Your task to perform on an android device: choose inbox layout in the gmail app Image 0: 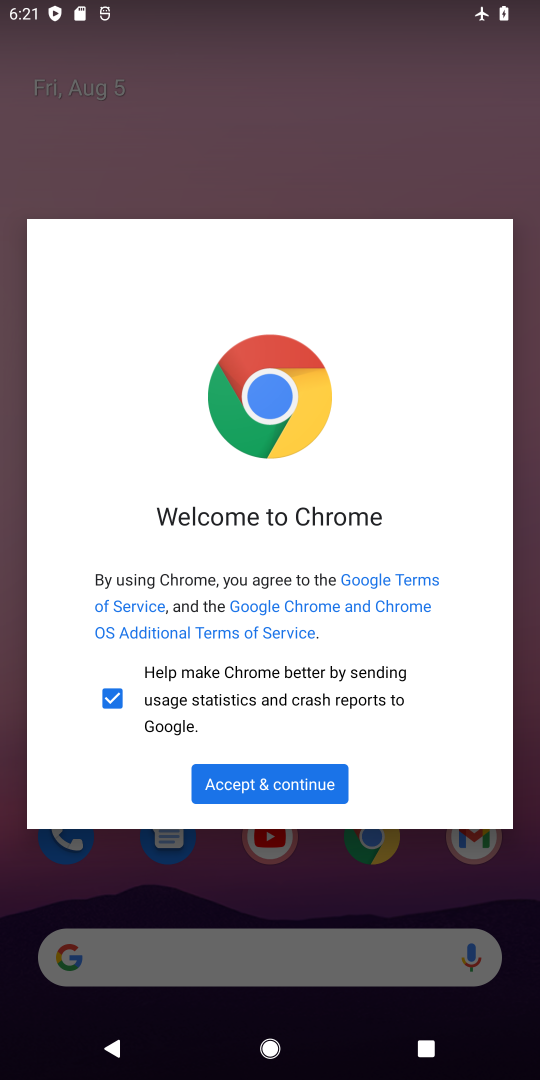
Step 0: press back button
Your task to perform on an android device: choose inbox layout in the gmail app Image 1: 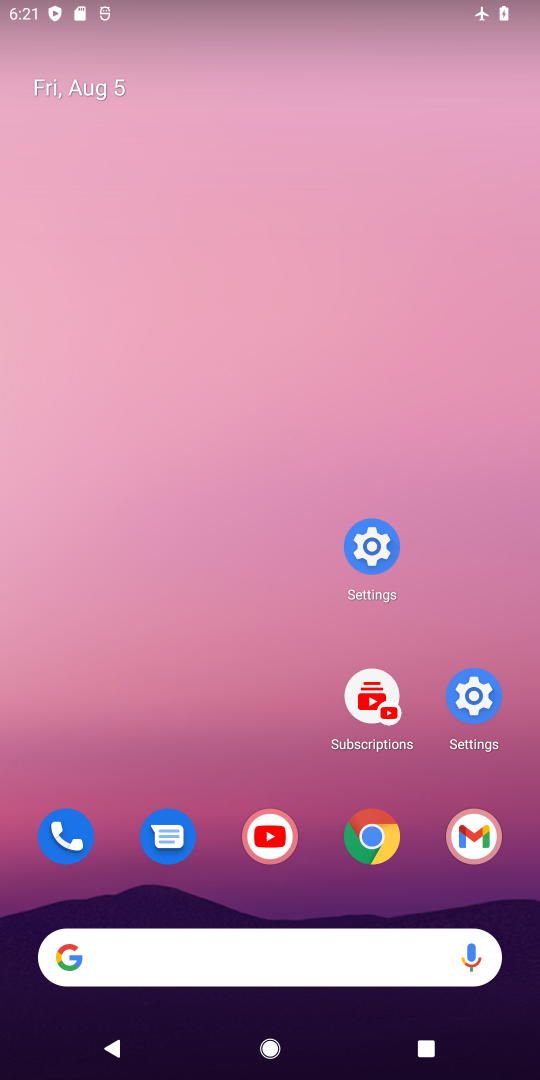
Step 1: click (96, 328)
Your task to perform on an android device: choose inbox layout in the gmail app Image 2: 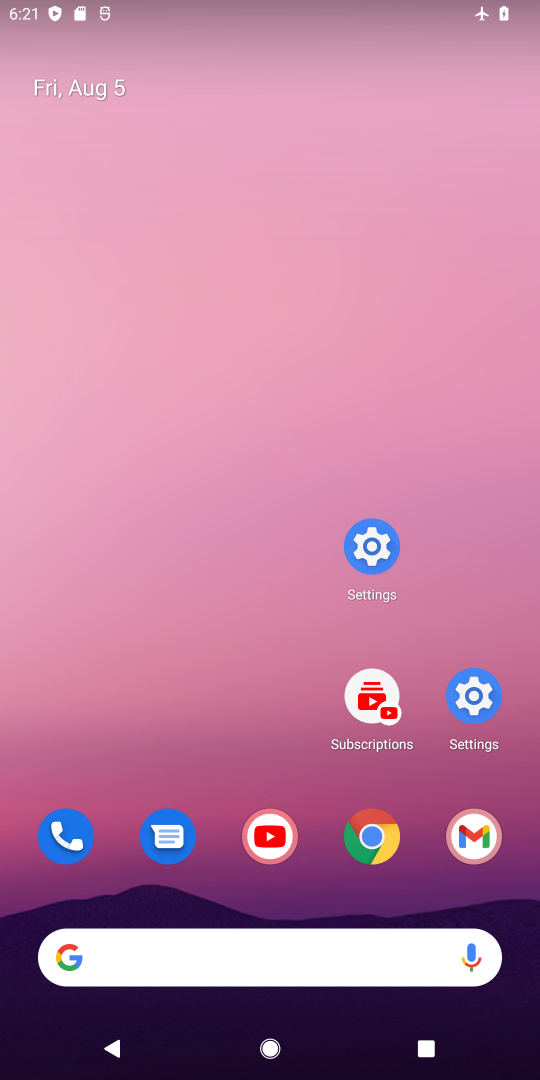
Step 2: drag from (243, 492) to (208, 234)
Your task to perform on an android device: choose inbox layout in the gmail app Image 3: 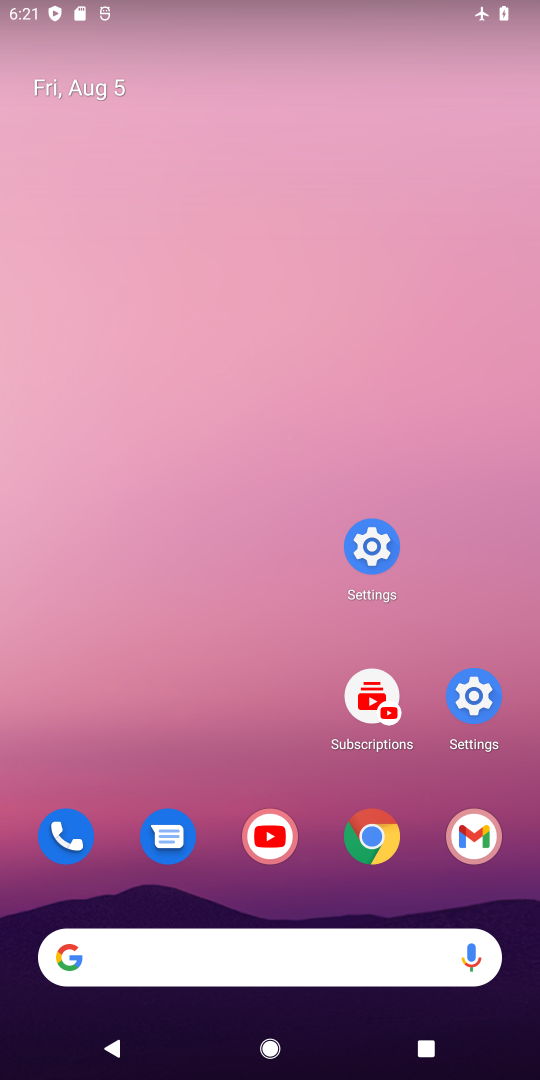
Step 3: drag from (247, 731) to (325, 249)
Your task to perform on an android device: choose inbox layout in the gmail app Image 4: 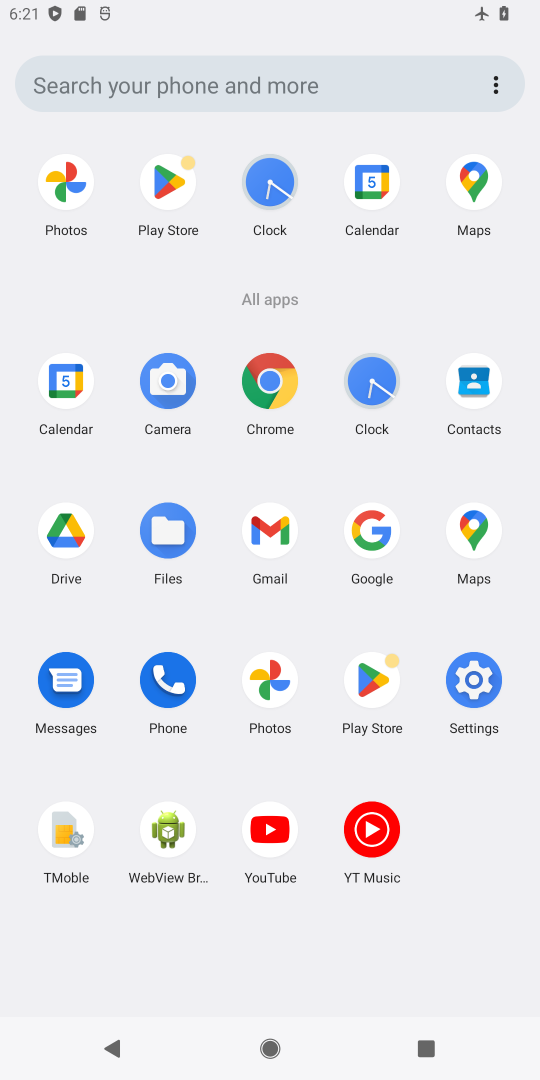
Step 4: click (263, 521)
Your task to perform on an android device: choose inbox layout in the gmail app Image 5: 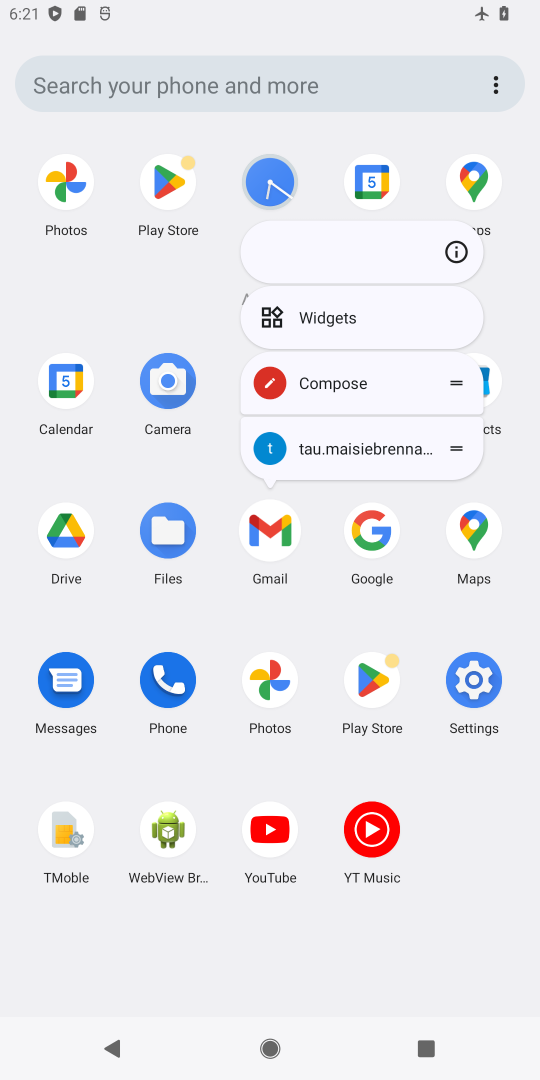
Step 5: click (263, 521)
Your task to perform on an android device: choose inbox layout in the gmail app Image 6: 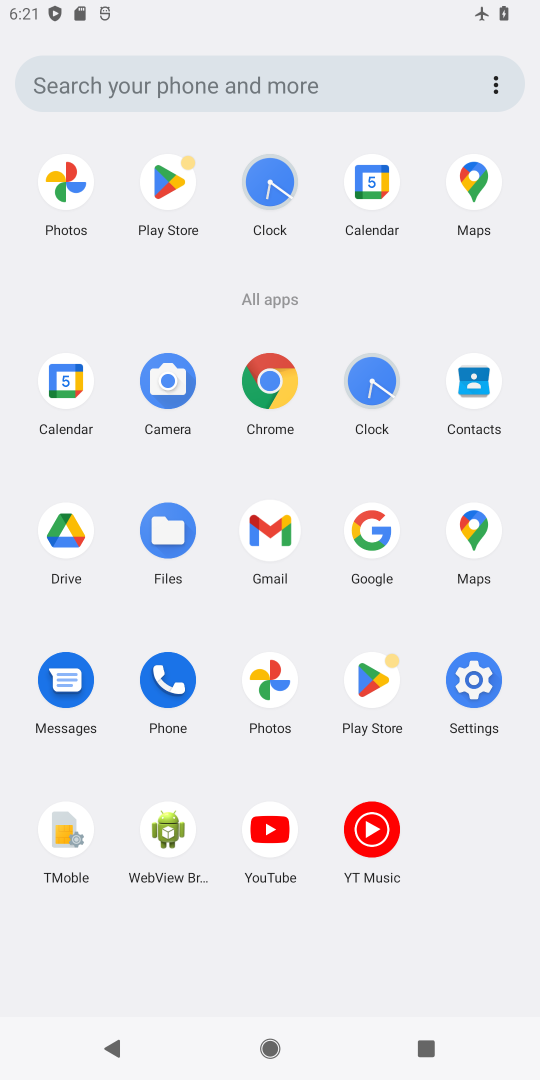
Step 6: click (263, 524)
Your task to perform on an android device: choose inbox layout in the gmail app Image 7: 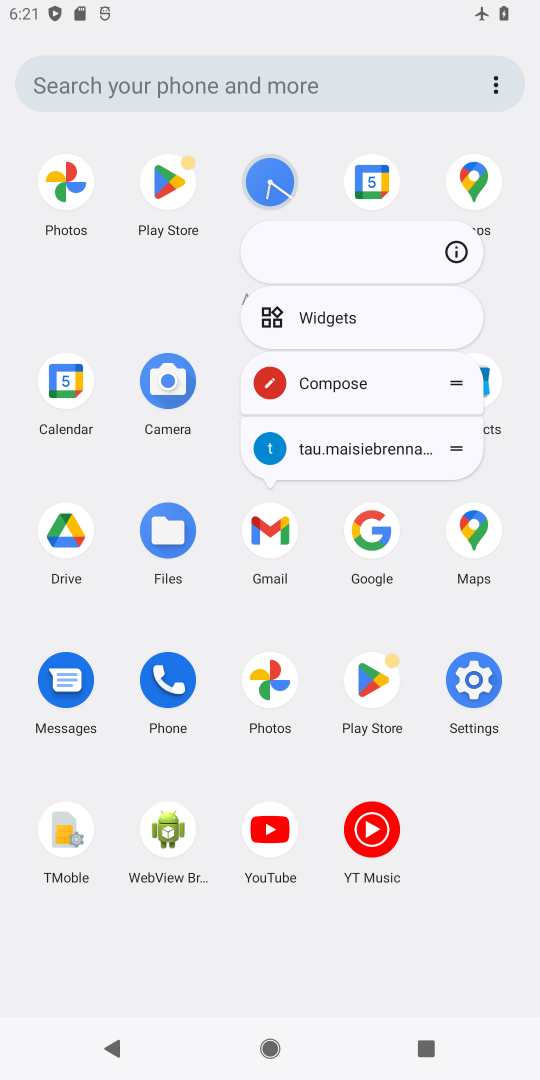
Step 7: click (262, 525)
Your task to perform on an android device: choose inbox layout in the gmail app Image 8: 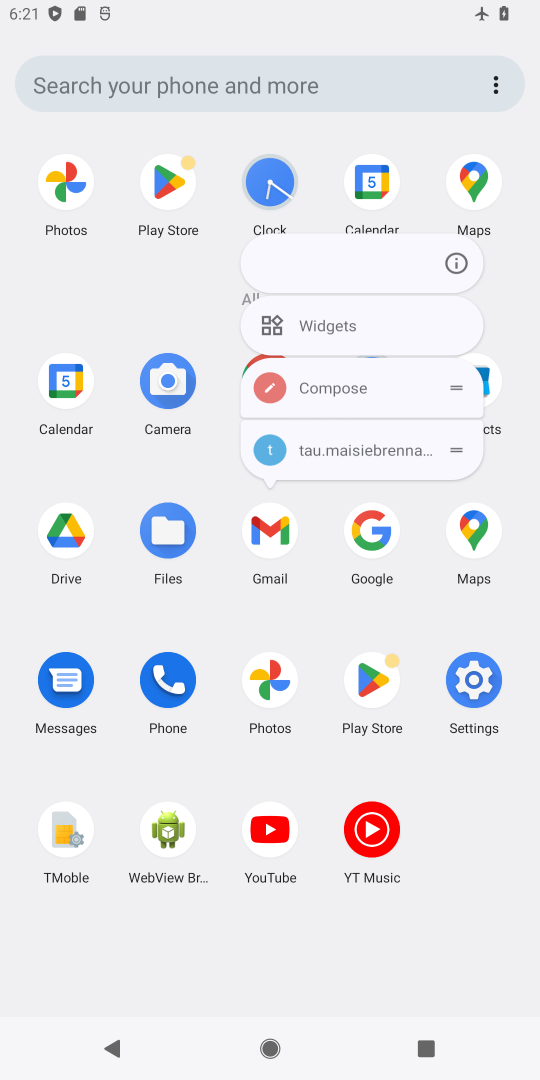
Step 8: click (262, 525)
Your task to perform on an android device: choose inbox layout in the gmail app Image 9: 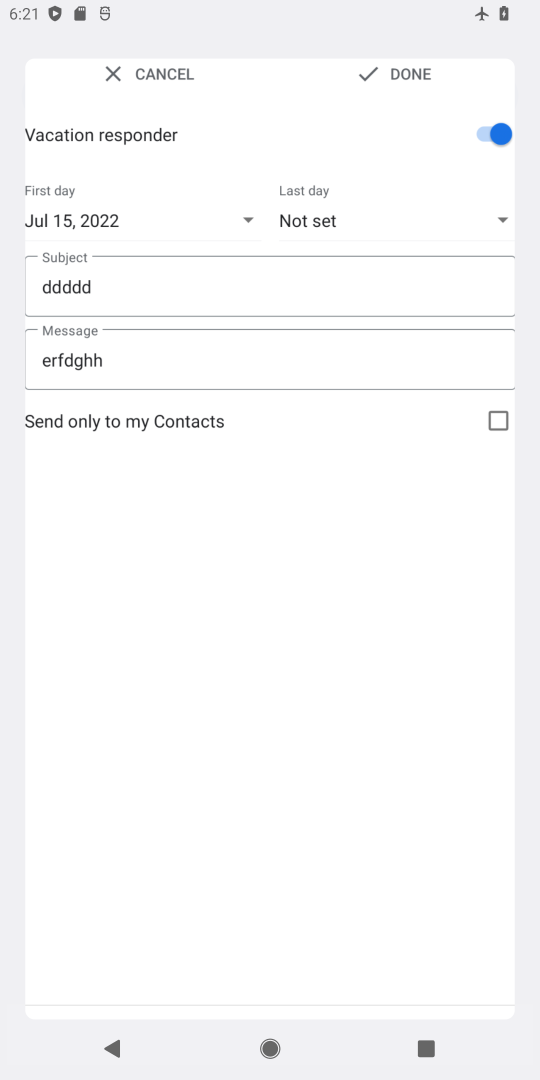
Step 9: click (262, 525)
Your task to perform on an android device: choose inbox layout in the gmail app Image 10: 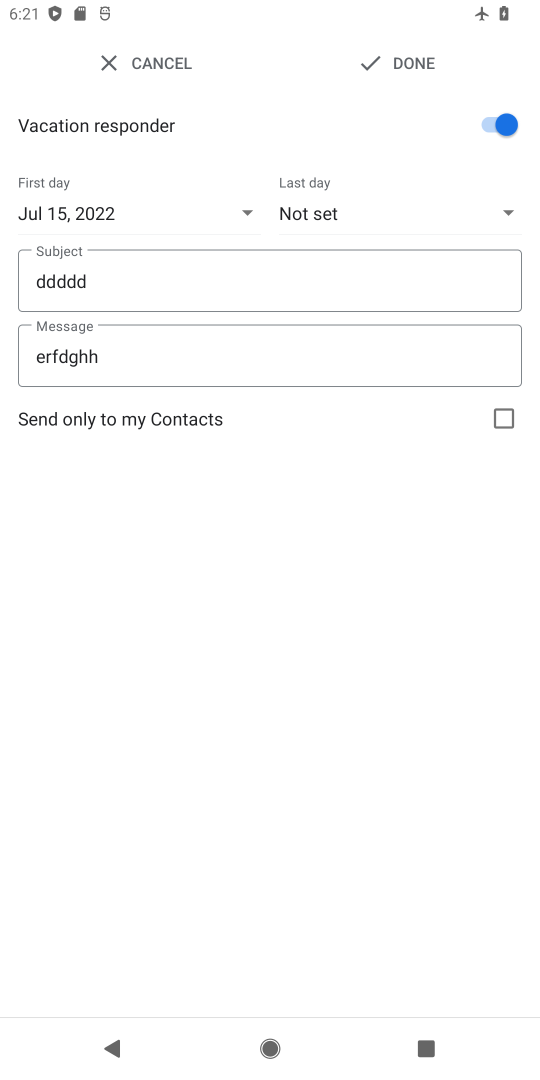
Step 10: click (262, 525)
Your task to perform on an android device: choose inbox layout in the gmail app Image 11: 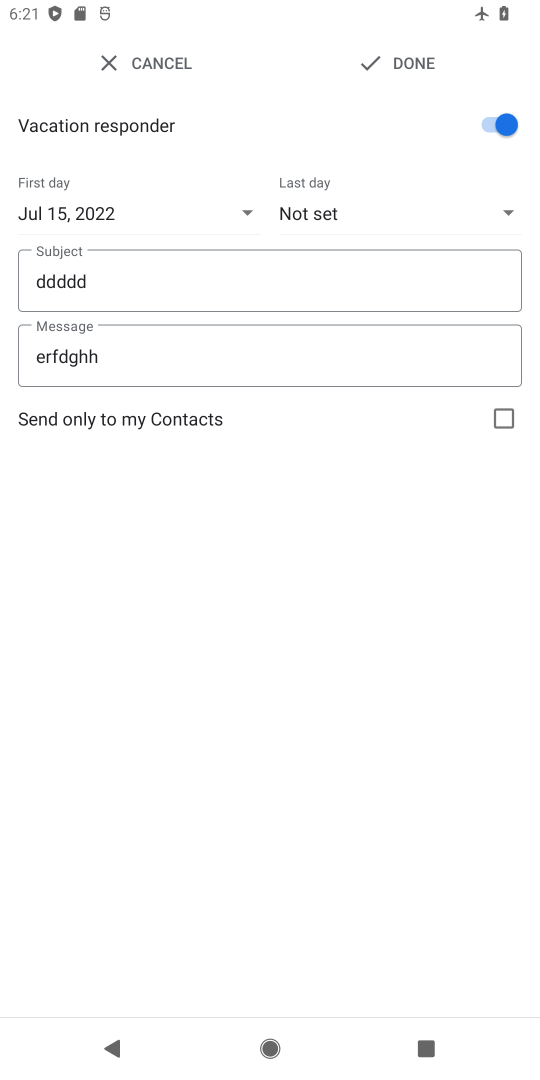
Step 11: click (264, 532)
Your task to perform on an android device: choose inbox layout in the gmail app Image 12: 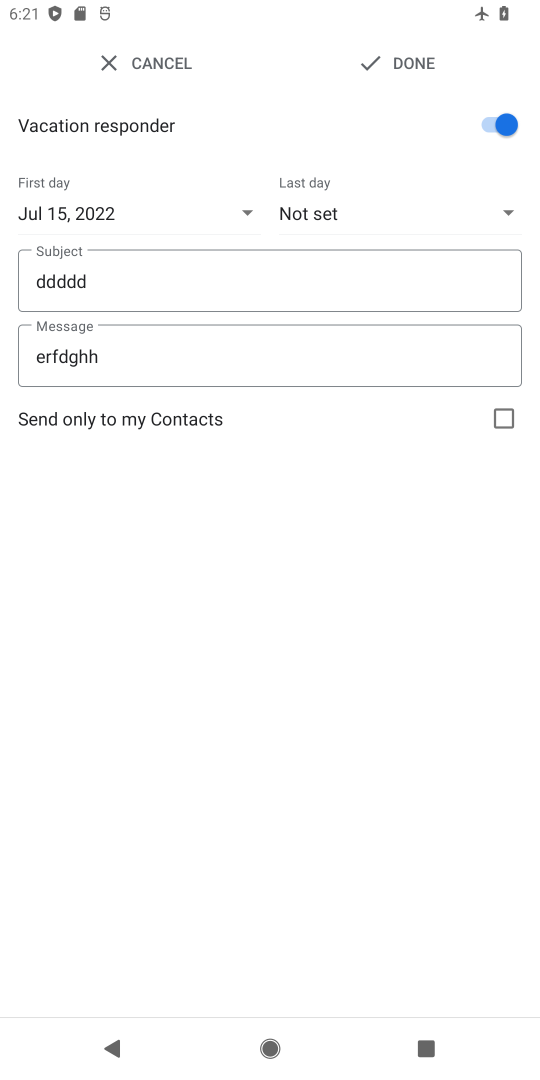
Step 12: press back button
Your task to perform on an android device: choose inbox layout in the gmail app Image 13: 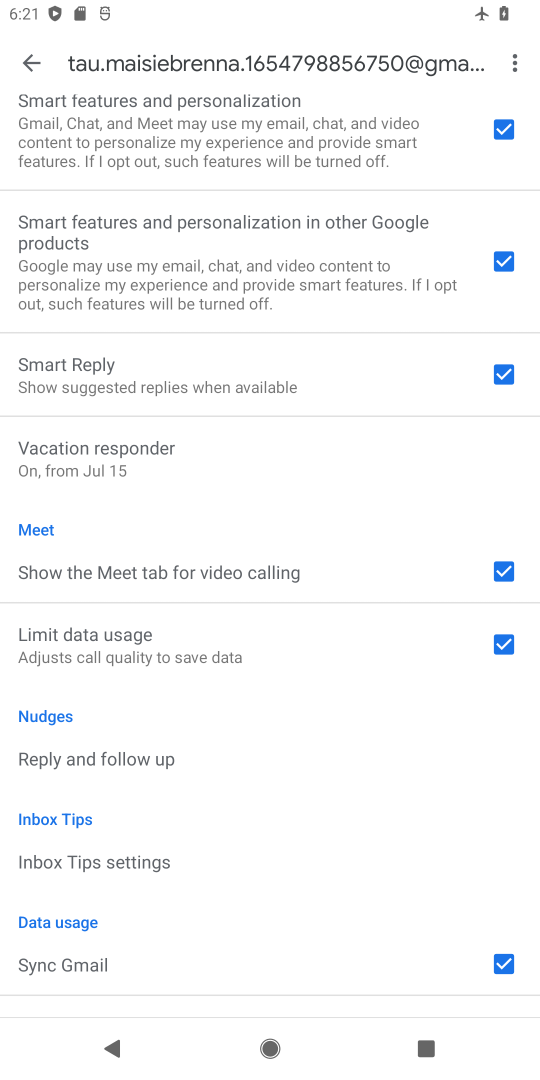
Step 13: click (28, 61)
Your task to perform on an android device: choose inbox layout in the gmail app Image 14: 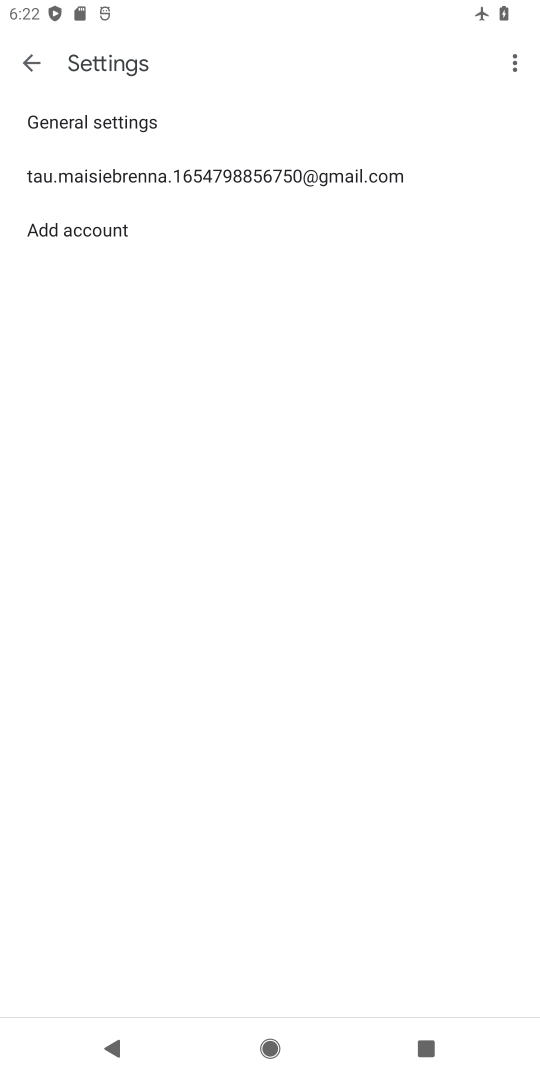
Step 14: click (26, 71)
Your task to perform on an android device: choose inbox layout in the gmail app Image 15: 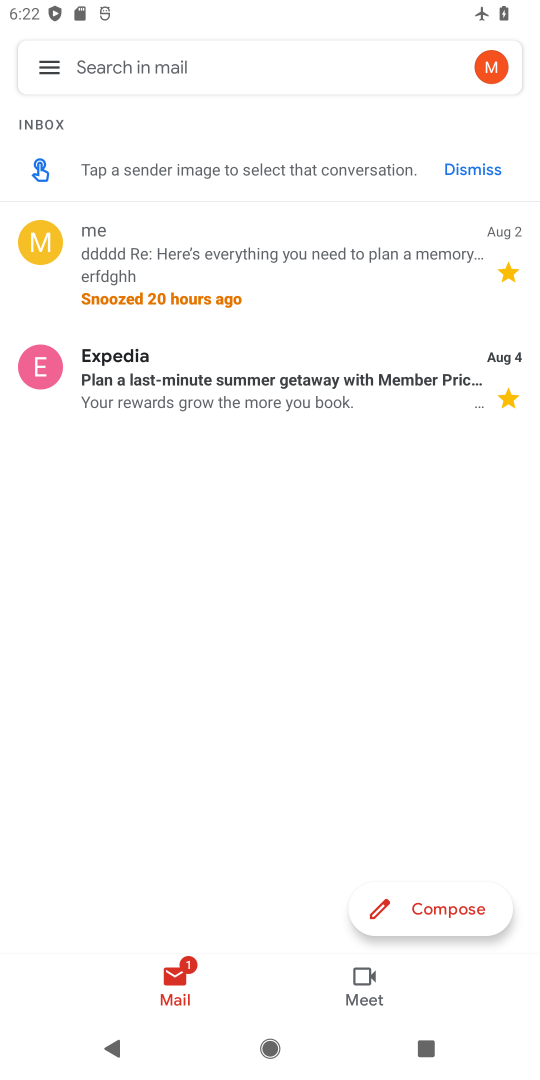
Step 15: click (34, 53)
Your task to perform on an android device: choose inbox layout in the gmail app Image 16: 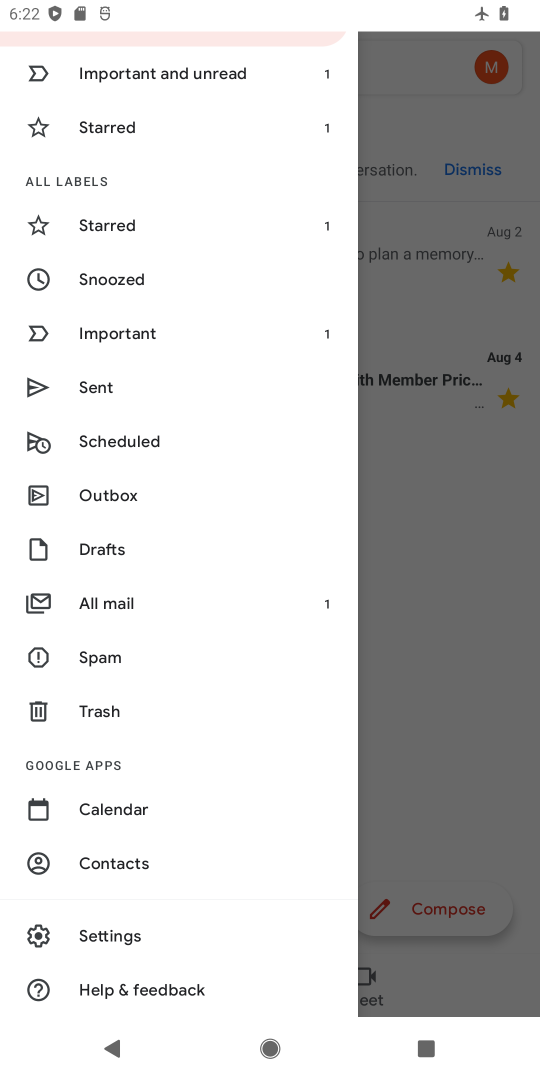
Step 16: click (34, 58)
Your task to perform on an android device: choose inbox layout in the gmail app Image 17: 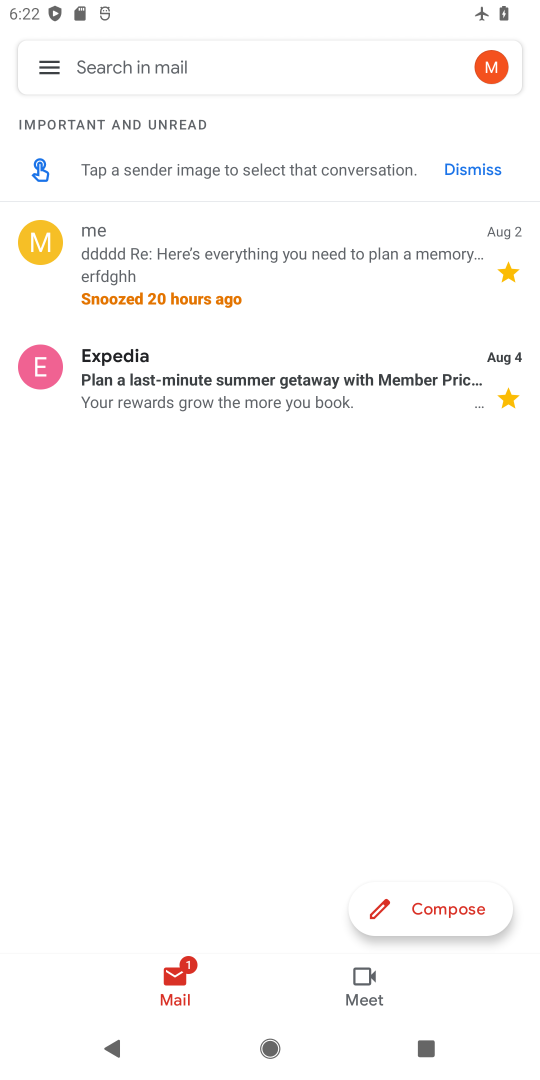
Step 17: press back button
Your task to perform on an android device: choose inbox layout in the gmail app Image 18: 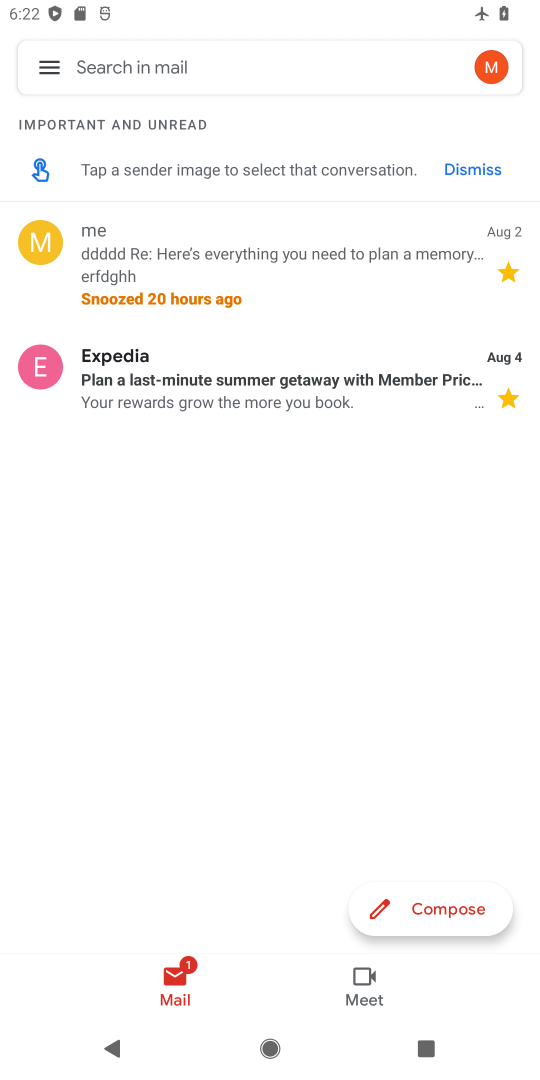
Step 18: press back button
Your task to perform on an android device: choose inbox layout in the gmail app Image 19: 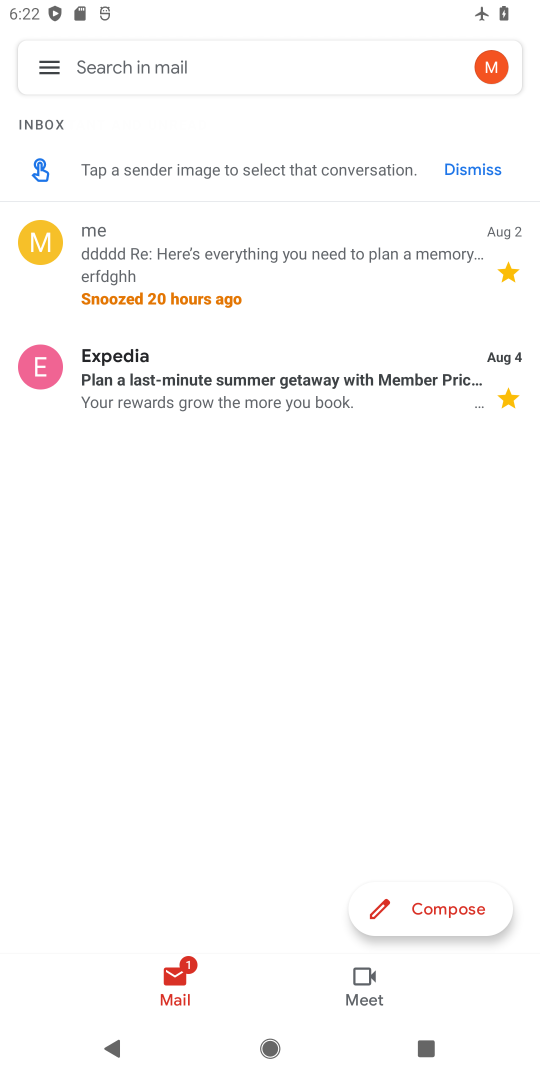
Step 19: press back button
Your task to perform on an android device: choose inbox layout in the gmail app Image 20: 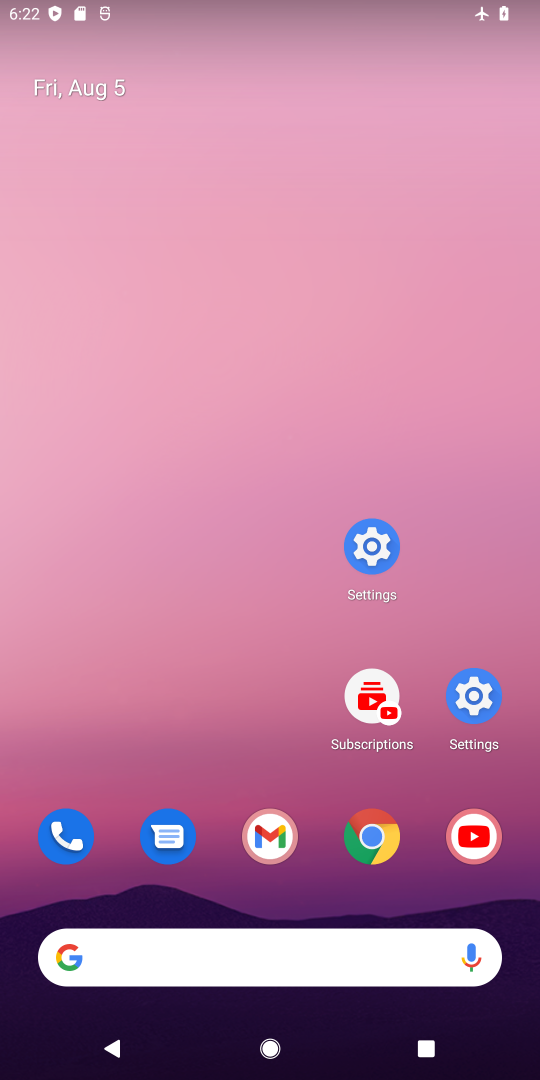
Step 20: drag from (289, 771) to (211, 245)
Your task to perform on an android device: choose inbox layout in the gmail app Image 21: 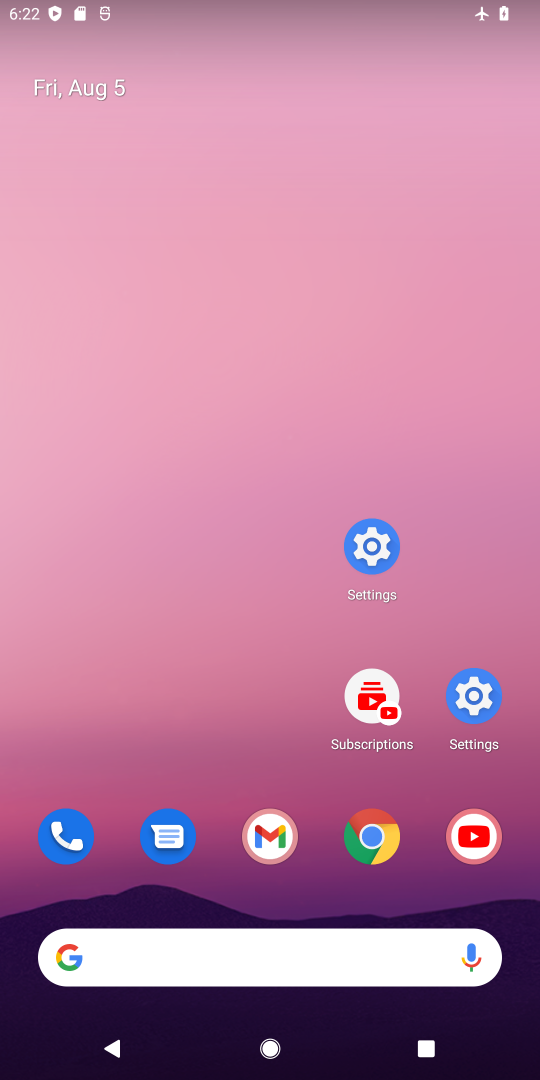
Step 21: drag from (294, 838) to (206, 231)
Your task to perform on an android device: choose inbox layout in the gmail app Image 22: 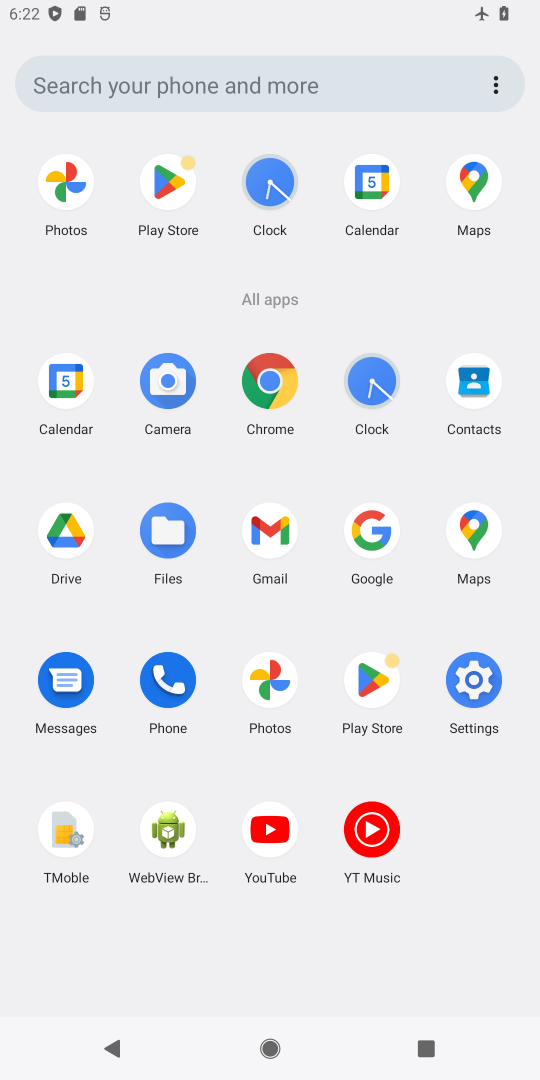
Step 22: drag from (284, 734) to (284, 107)
Your task to perform on an android device: choose inbox layout in the gmail app Image 23: 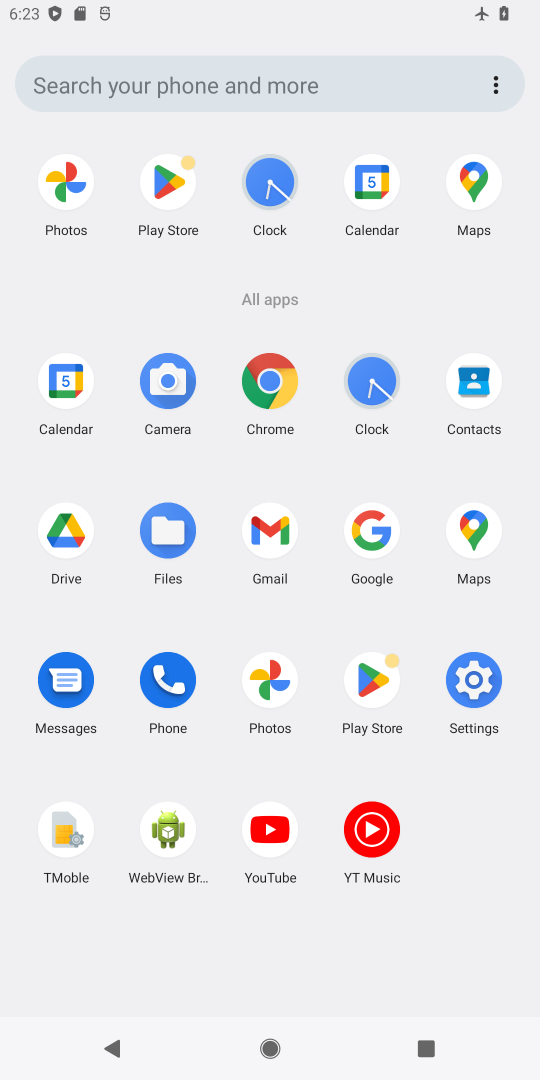
Step 23: click (259, 529)
Your task to perform on an android device: choose inbox layout in the gmail app Image 24: 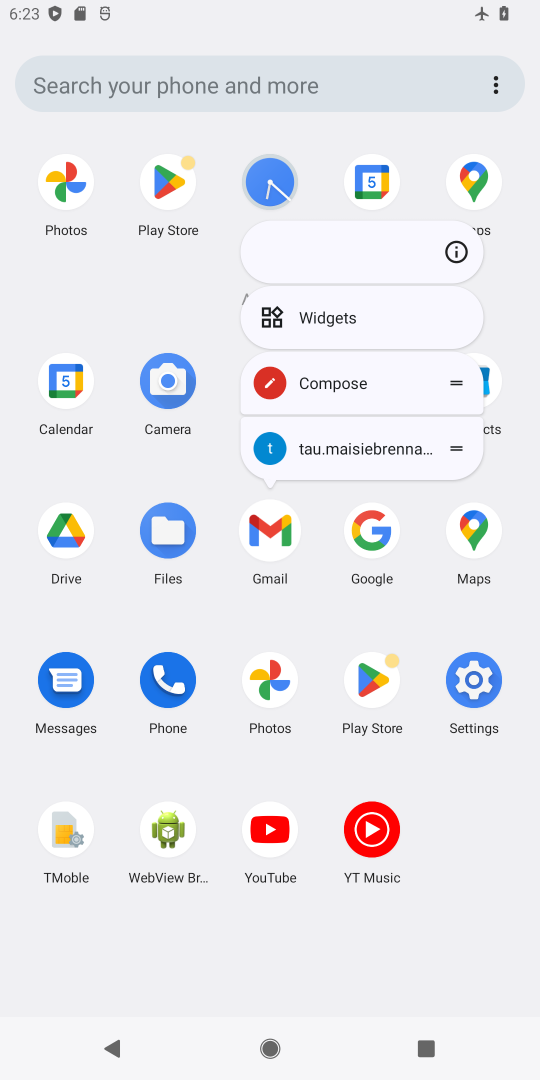
Step 24: click (259, 529)
Your task to perform on an android device: choose inbox layout in the gmail app Image 25: 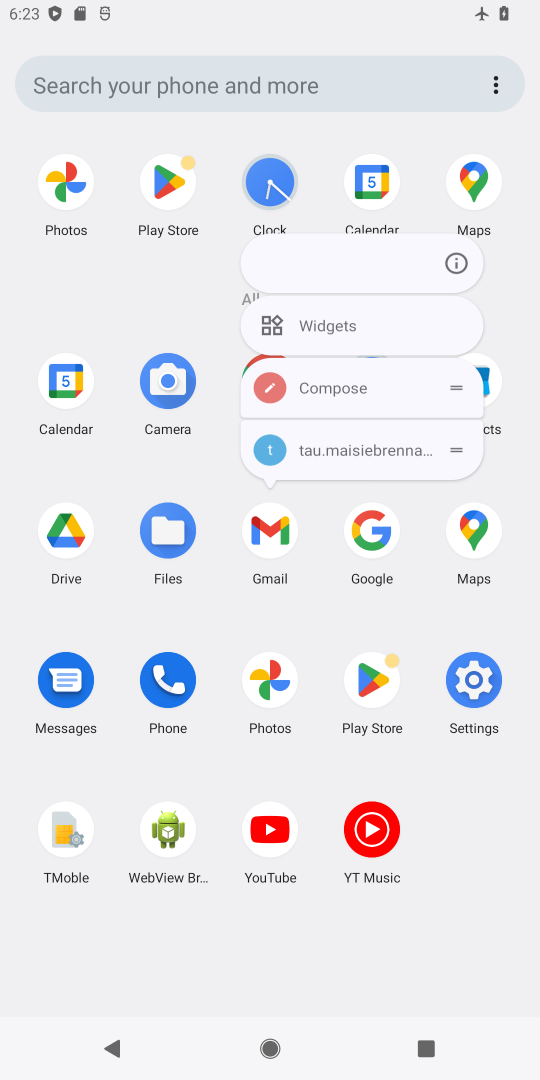
Step 25: click (259, 529)
Your task to perform on an android device: choose inbox layout in the gmail app Image 26: 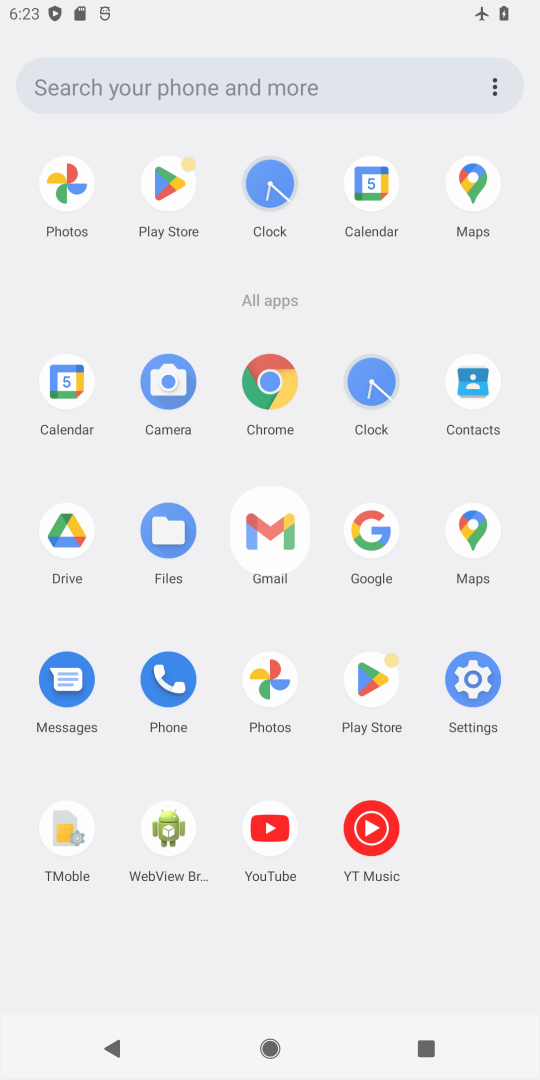
Step 26: click (259, 529)
Your task to perform on an android device: choose inbox layout in the gmail app Image 27: 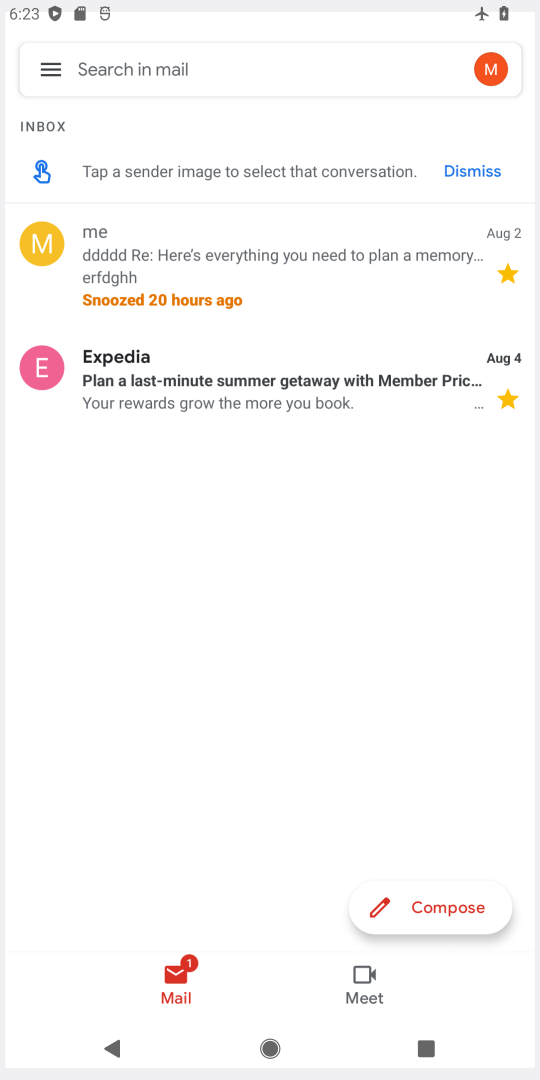
Step 27: click (266, 532)
Your task to perform on an android device: choose inbox layout in the gmail app Image 28: 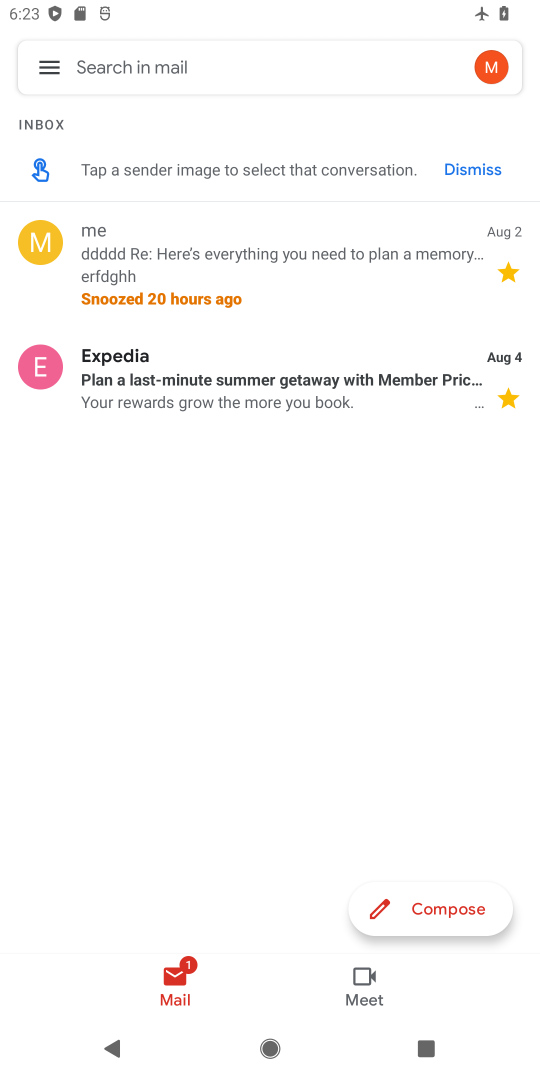
Step 28: click (41, 59)
Your task to perform on an android device: choose inbox layout in the gmail app Image 29: 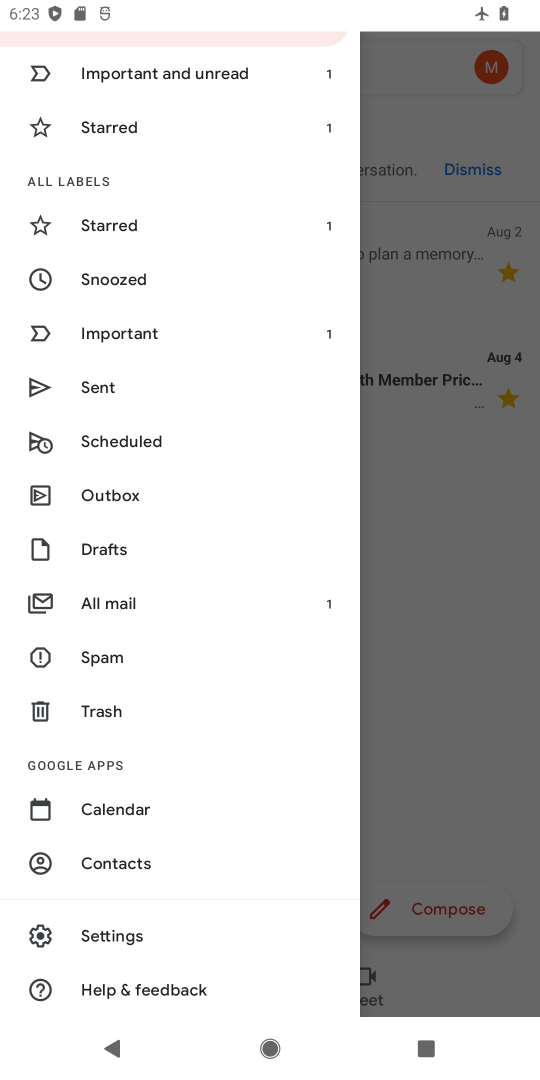
Step 29: click (41, 60)
Your task to perform on an android device: choose inbox layout in the gmail app Image 30: 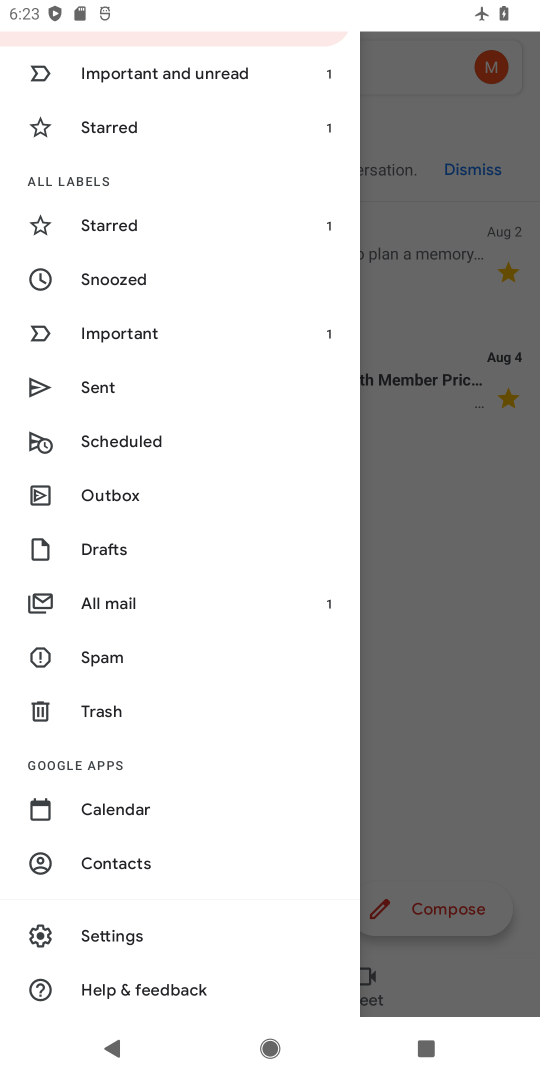
Step 30: drag from (132, 393) to (211, 759)
Your task to perform on an android device: choose inbox layout in the gmail app Image 31: 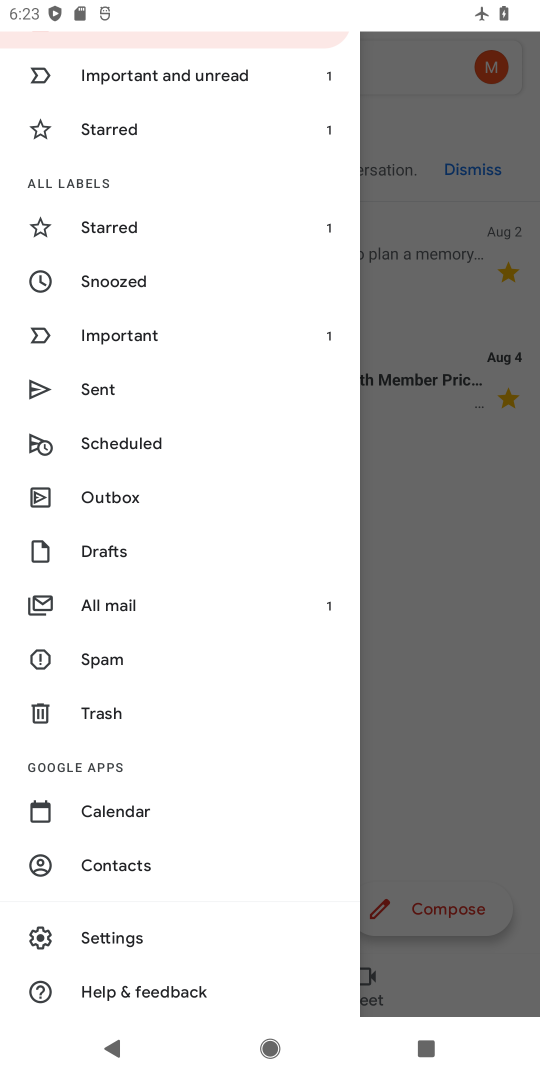
Step 31: click (173, 293)
Your task to perform on an android device: choose inbox layout in the gmail app Image 32: 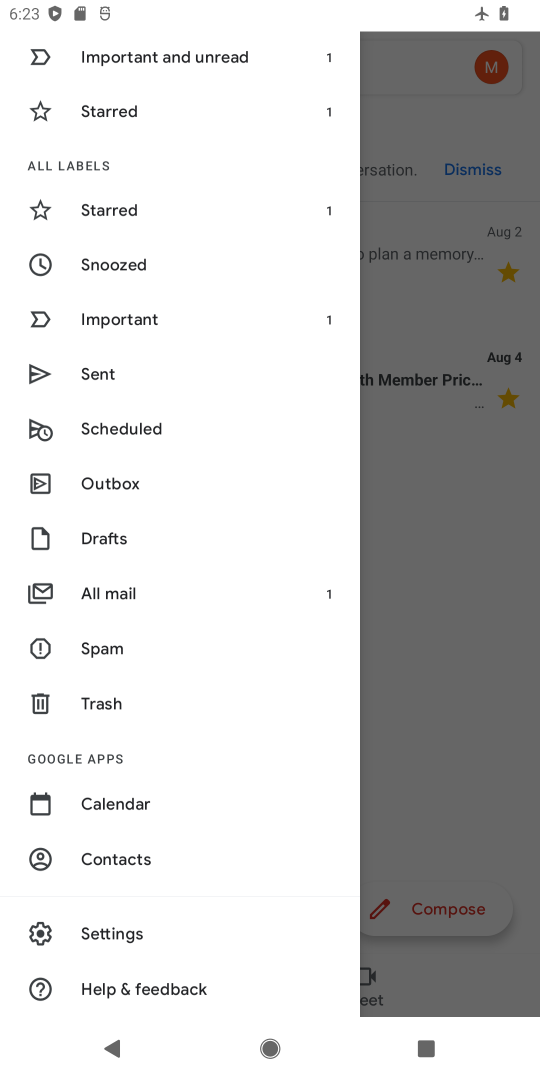
Step 32: drag from (205, 594) to (226, 304)
Your task to perform on an android device: choose inbox layout in the gmail app Image 33: 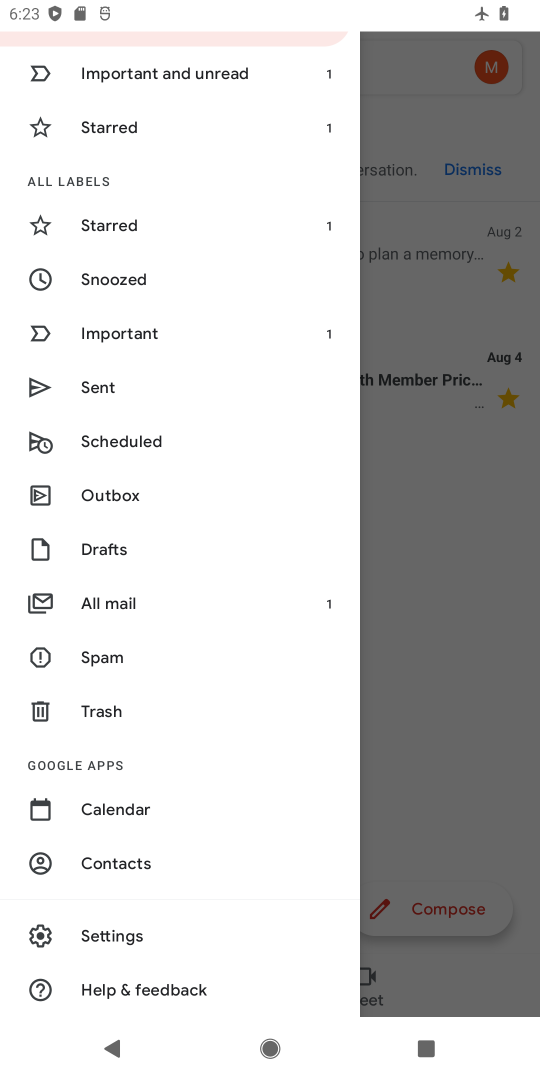
Step 33: click (120, 928)
Your task to perform on an android device: choose inbox layout in the gmail app Image 34: 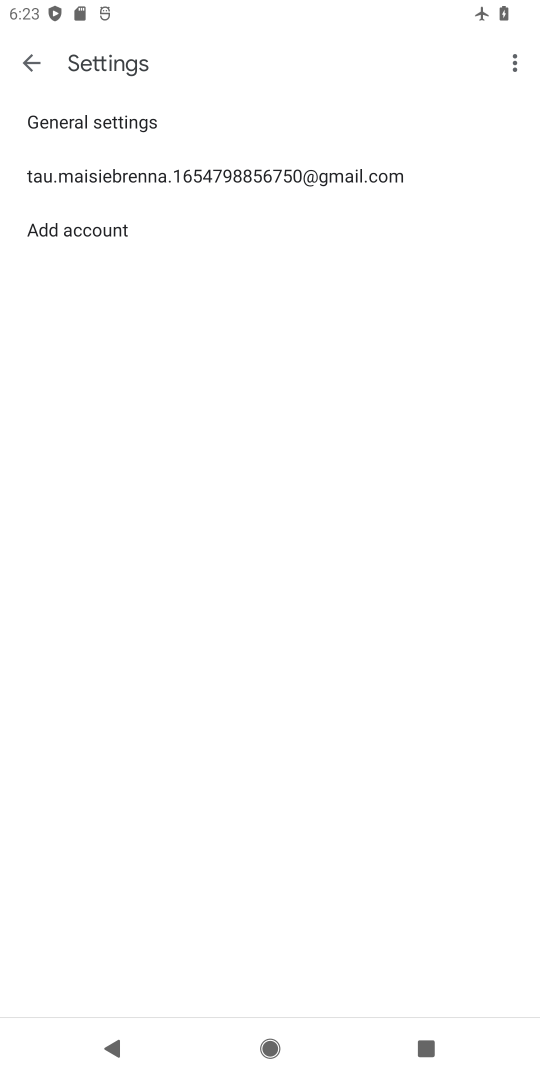
Step 34: click (48, 86)
Your task to perform on an android device: choose inbox layout in the gmail app Image 35: 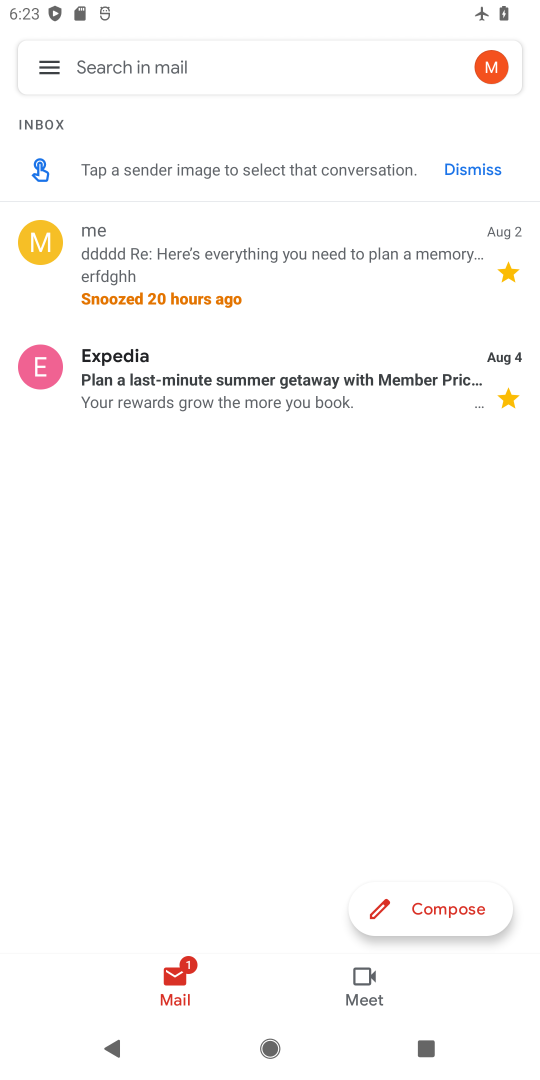
Step 35: task complete